Your task to perform on an android device: Add jbl flip 4 to the cart on costco.com, then select checkout. Image 0: 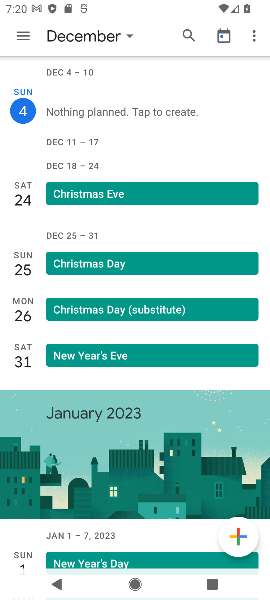
Step 0: press home button
Your task to perform on an android device: Add jbl flip 4 to the cart on costco.com, then select checkout. Image 1: 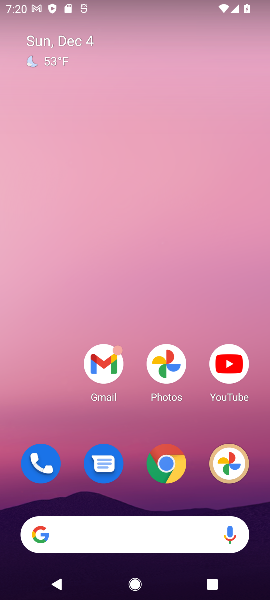
Step 1: click (161, 523)
Your task to perform on an android device: Add jbl flip 4 to the cart on costco.com, then select checkout. Image 2: 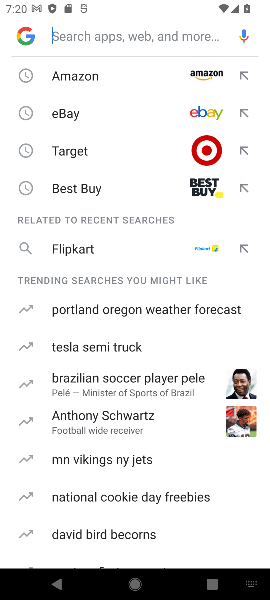
Step 2: type "costco"
Your task to perform on an android device: Add jbl flip 4 to the cart on costco.com, then select checkout. Image 3: 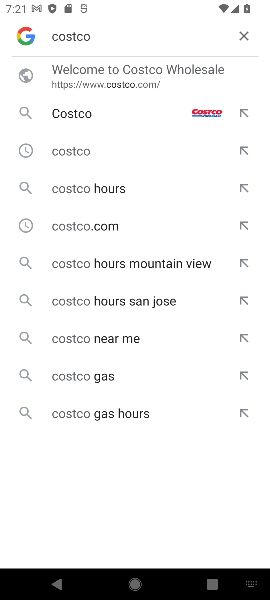
Step 3: click (143, 87)
Your task to perform on an android device: Add jbl flip 4 to the cart on costco.com, then select checkout. Image 4: 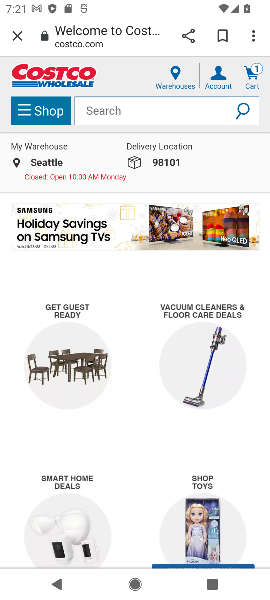
Step 4: click (155, 114)
Your task to perform on an android device: Add jbl flip 4 to the cart on costco.com, then select checkout. Image 5: 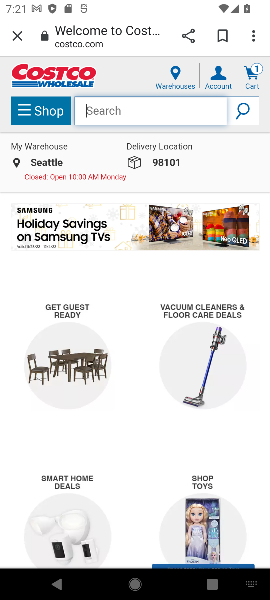
Step 5: type "jbl flip 4"
Your task to perform on an android device: Add jbl flip 4 to the cart on costco.com, then select checkout. Image 6: 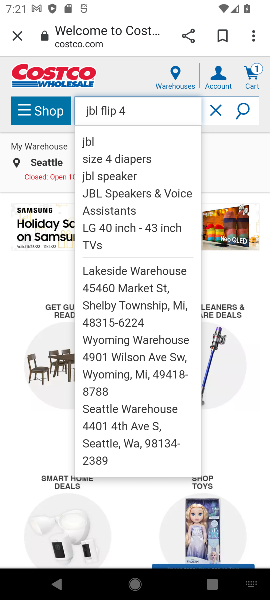
Step 6: click (245, 116)
Your task to perform on an android device: Add jbl flip 4 to the cart on costco.com, then select checkout. Image 7: 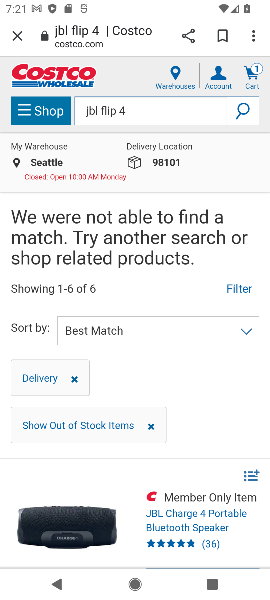
Step 7: click (199, 531)
Your task to perform on an android device: Add jbl flip 4 to the cart on costco.com, then select checkout. Image 8: 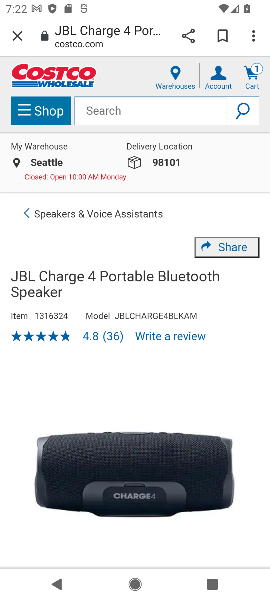
Step 8: task complete